Your task to perform on an android device: View the shopping cart on ebay. Search for "dell xps" on ebay, select the first entry, add it to the cart, then select checkout. Image 0: 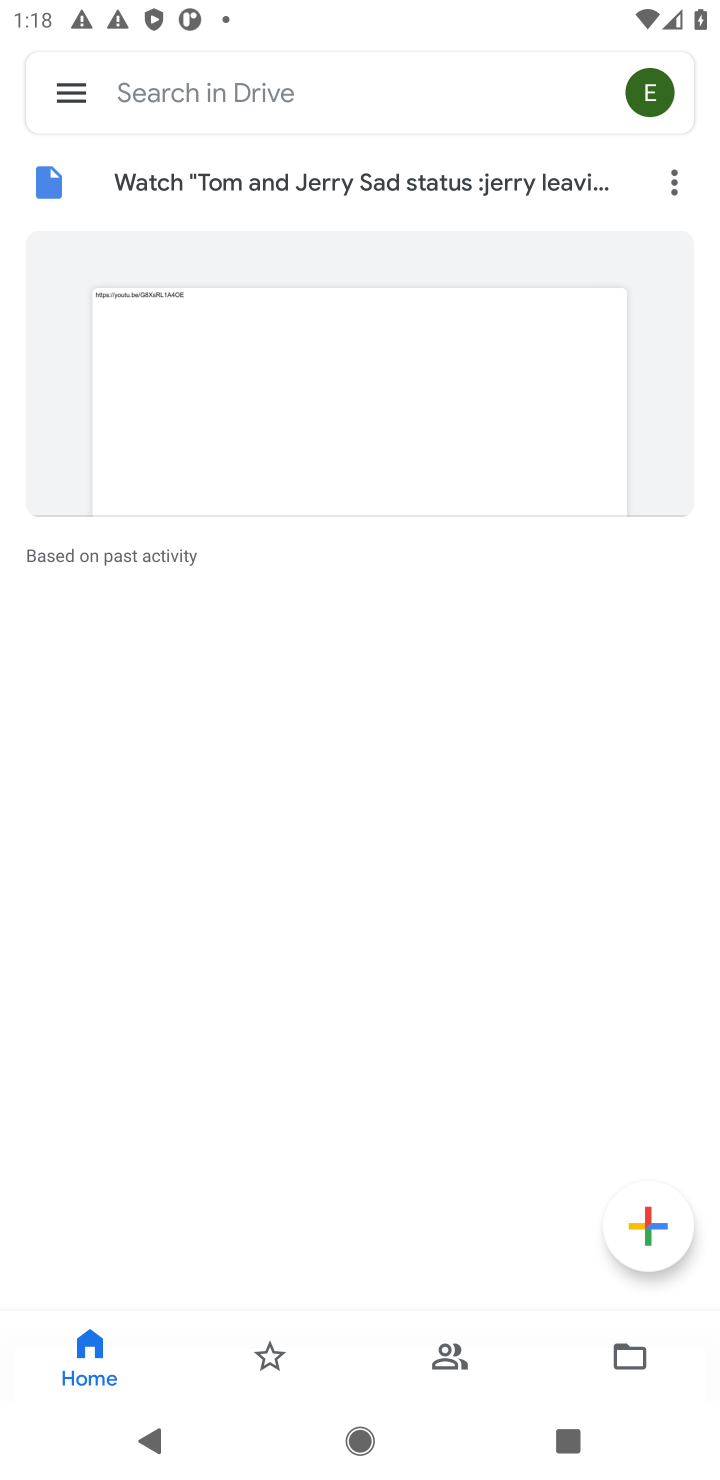
Step 0: press home button
Your task to perform on an android device: View the shopping cart on ebay. Search for "dell xps" on ebay, select the first entry, add it to the cart, then select checkout. Image 1: 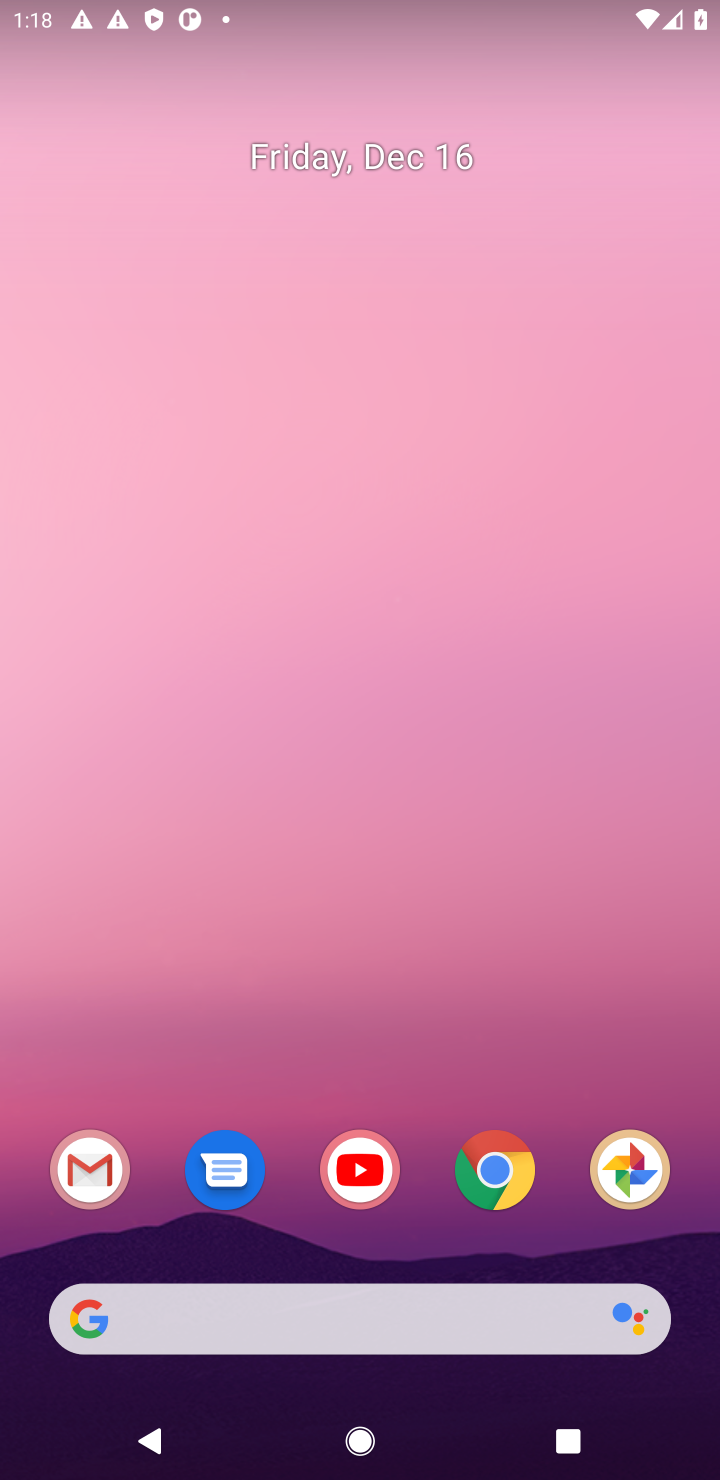
Step 1: click (490, 1175)
Your task to perform on an android device: View the shopping cart on ebay. Search for "dell xps" on ebay, select the first entry, add it to the cart, then select checkout. Image 2: 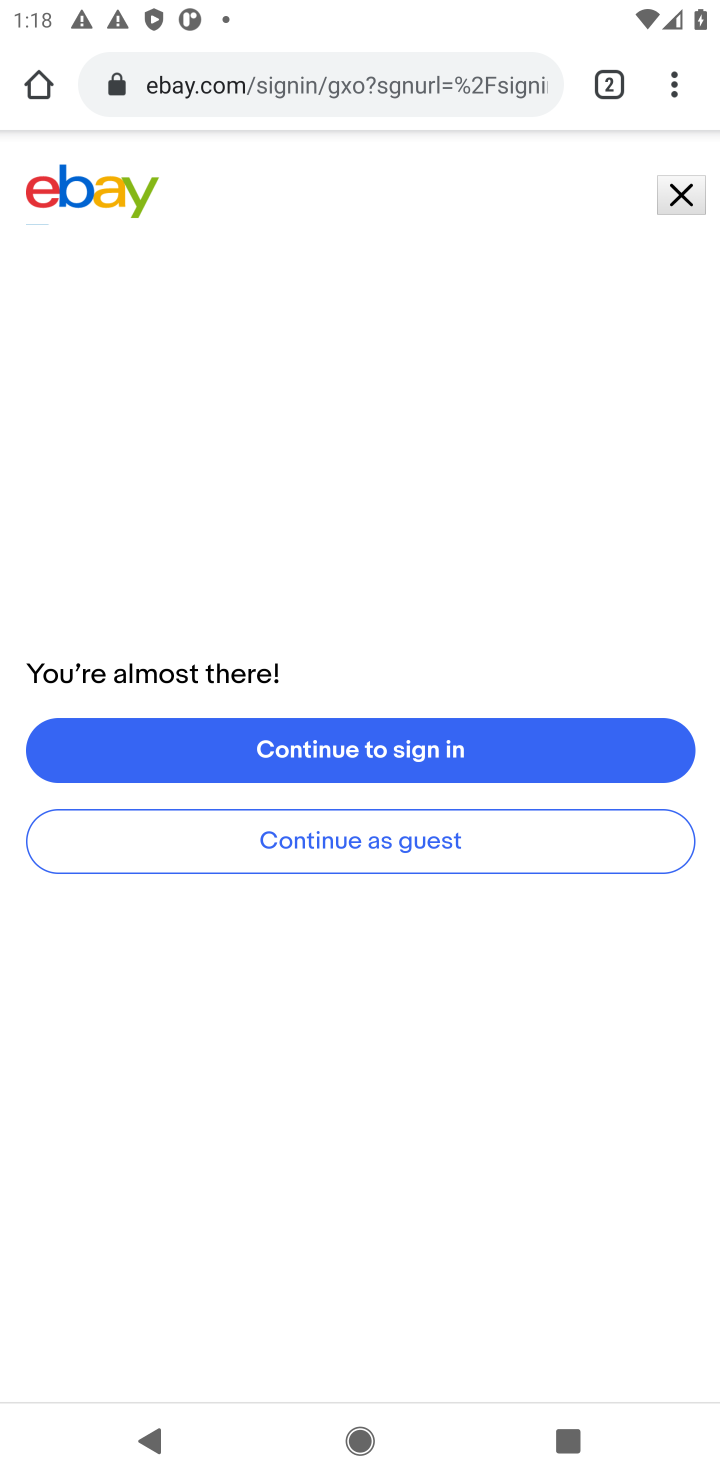
Step 2: click (678, 188)
Your task to perform on an android device: View the shopping cart on ebay. Search for "dell xps" on ebay, select the first entry, add it to the cart, then select checkout. Image 3: 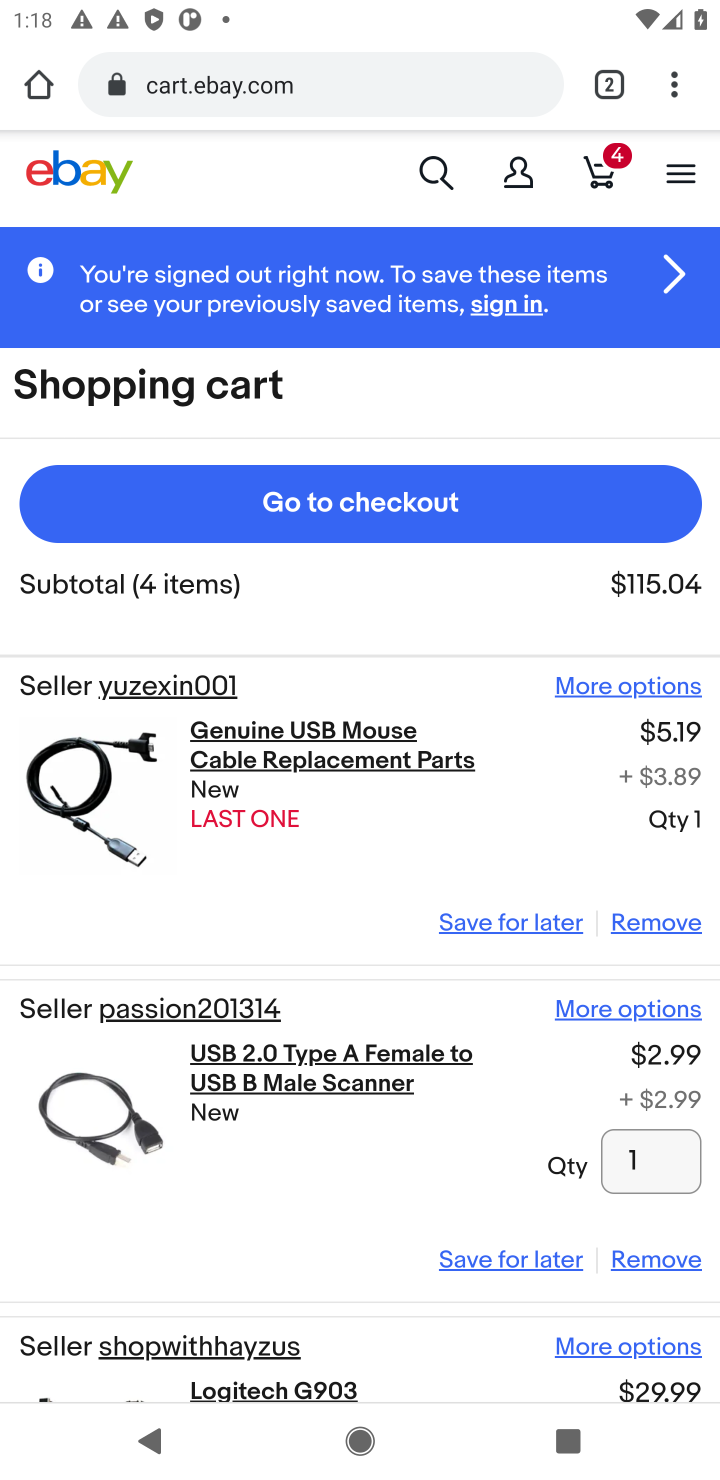
Step 3: click (423, 172)
Your task to perform on an android device: View the shopping cart on ebay. Search for "dell xps" on ebay, select the first entry, add it to the cart, then select checkout. Image 4: 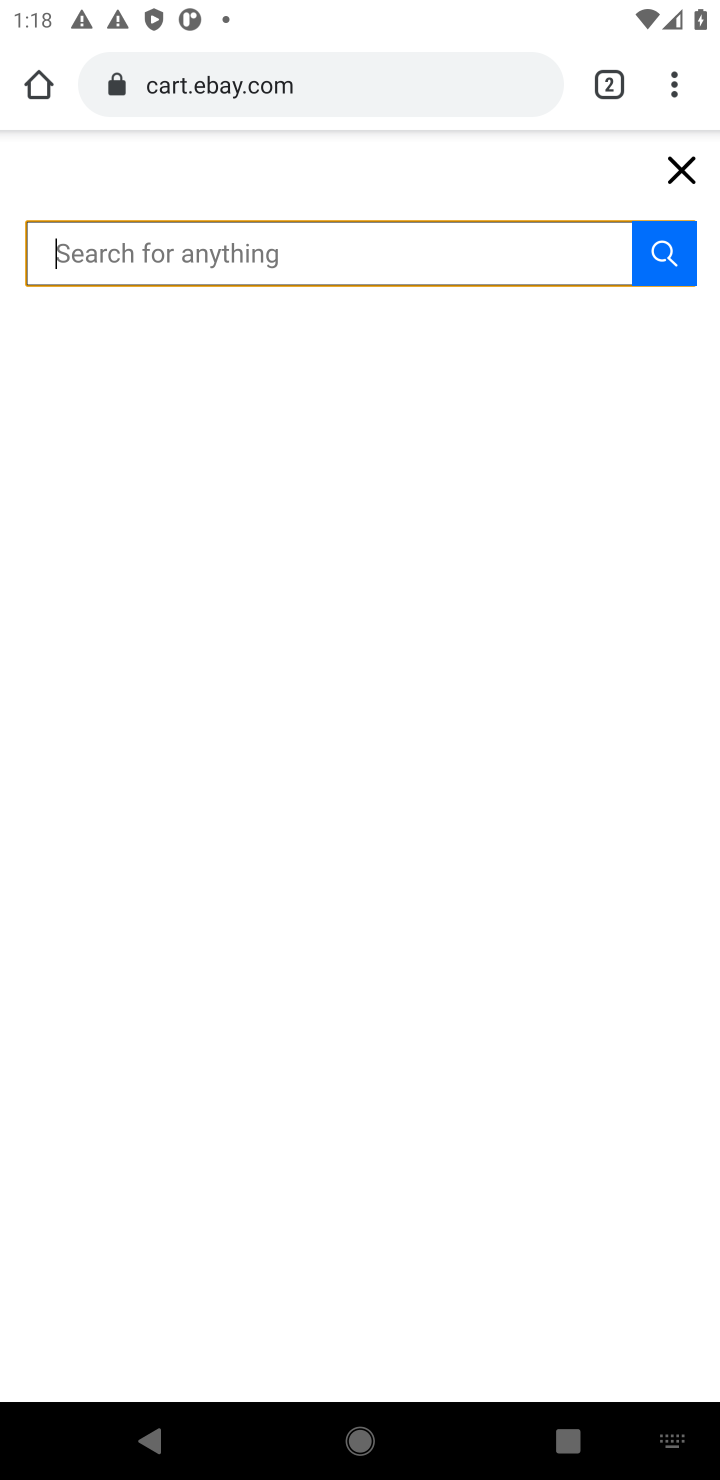
Step 4: type "dell xps"
Your task to perform on an android device: View the shopping cart on ebay. Search for "dell xps" on ebay, select the first entry, add it to the cart, then select checkout. Image 5: 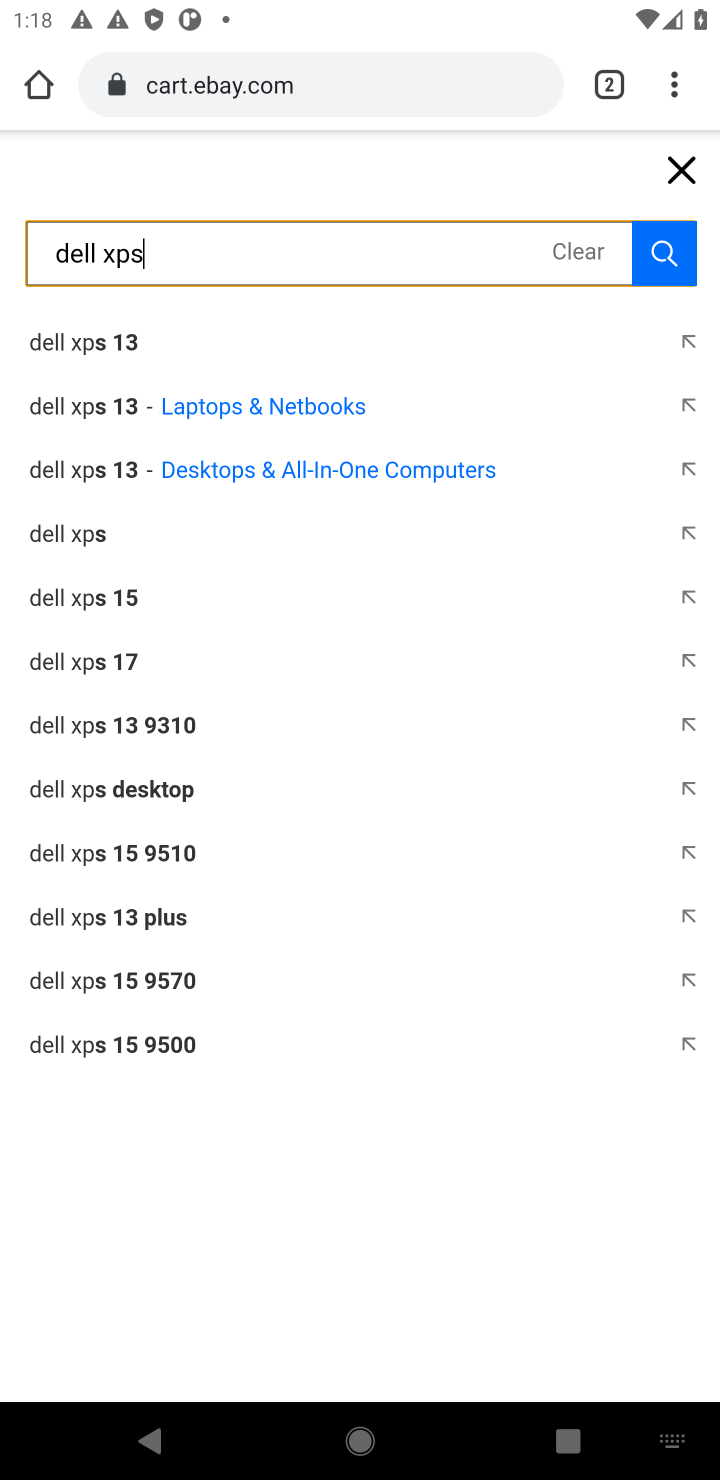
Step 5: click (60, 542)
Your task to perform on an android device: View the shopping cart on ebay. Search for "dell xps" on ebay, select the first entry, add it to the cart, then select checkout. Image 6: 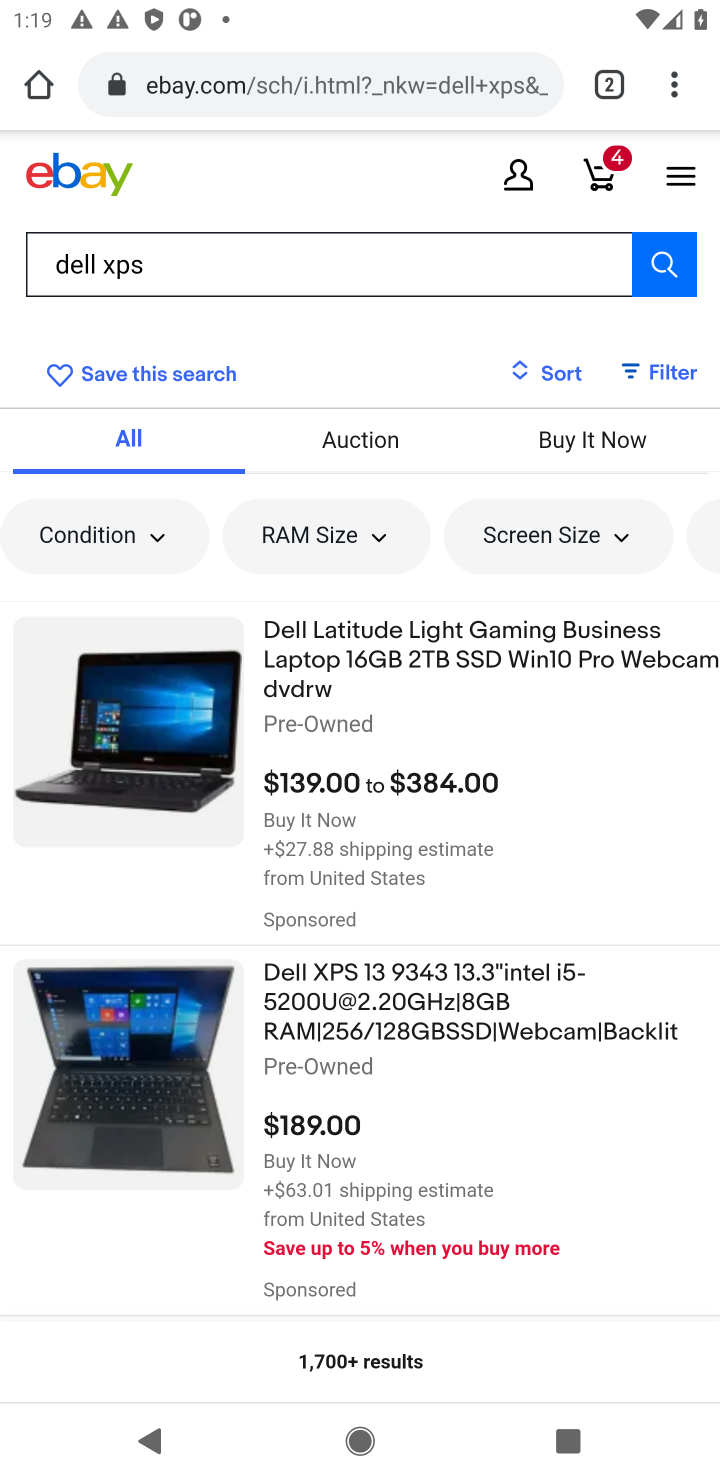
Step 6: task complete